Your task to perform on an android device: Open maps Image 0: 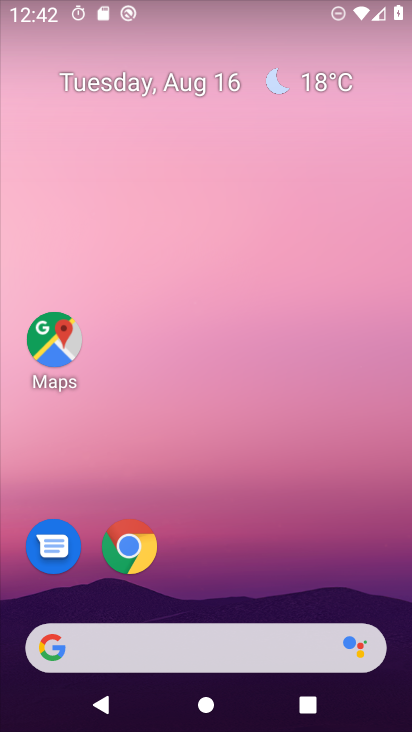
Step 0: drag from (236, 567) to (240, 144)
Your task to perform on an android device: Open maps Image 1: 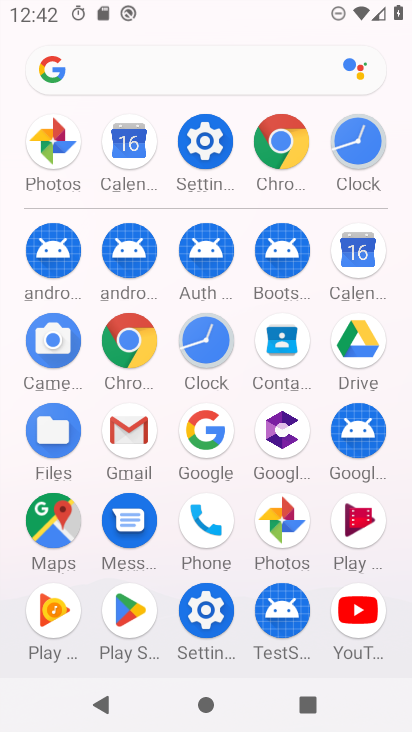
Step 1: click (49, 515)
Your task to perform on an android device: Open maps Image 2: 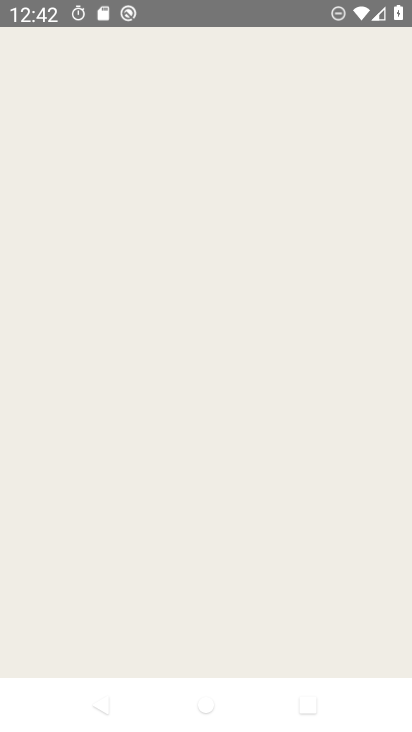
Step 2: task complete